Your task to perform on an android device: Check the weather Image 0: 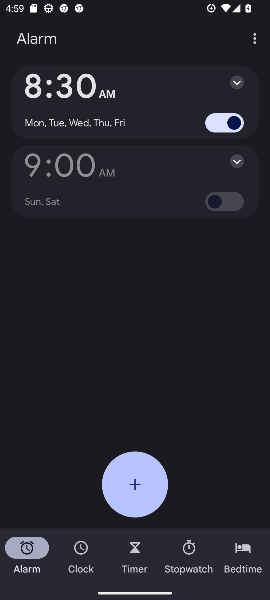
Step 0: press back button
Your task to perform on an android device: Check the weather Image 1: 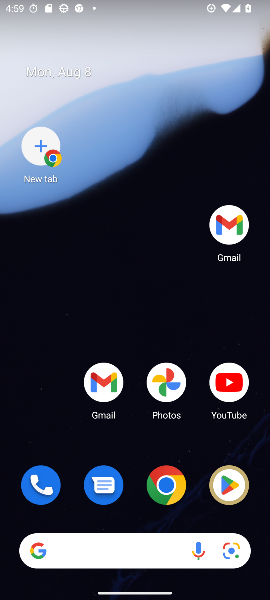
Step 1: drag from (177, 525) to (120, 89)
Your task to perform on an android device: Check the weather Image 2: 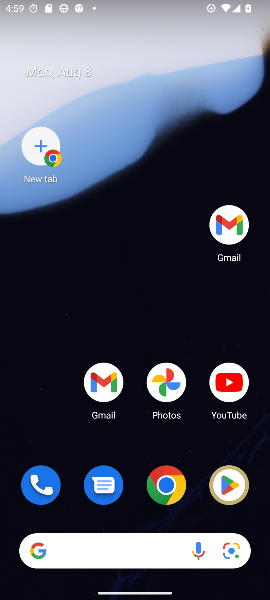
Step 2: drag from (200, 417) to (176, 229)
Your task to perform on an android device: Check the weather Image 3: 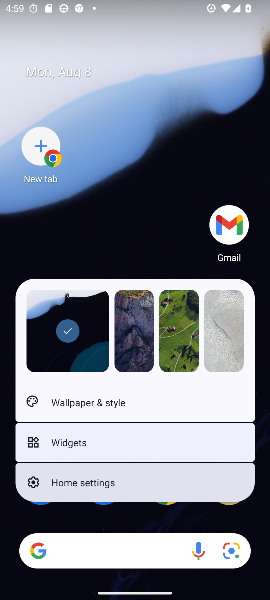
Step 3: press home button
Your task to perform on an android device: Check the weather Image 4: 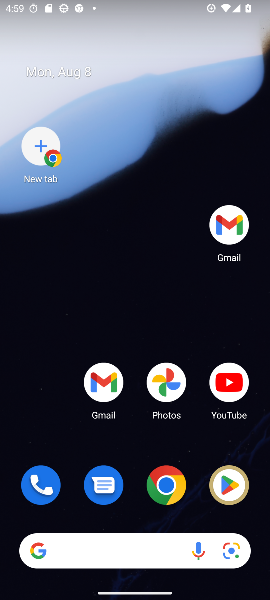
Step 4: click (87, 106)
Your task to perform on an android device: Check the weather Image 5: 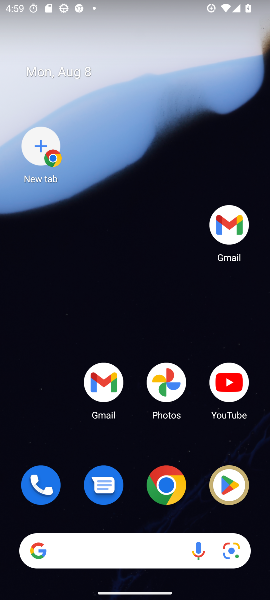
Step 5: drag from (146, 464) to (69, 76)
Your task to perform on an android device: Check the weather Image 6: 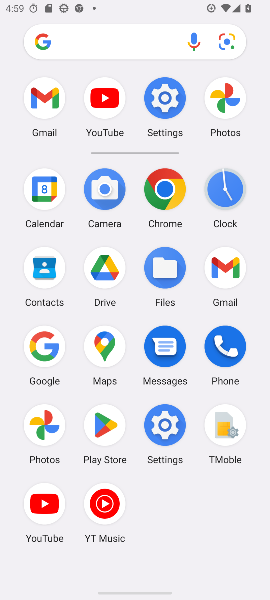
Step 6: drag from (142, 393) to (128, 143)
Your task to perform on an android device: Check the weather Image 7: 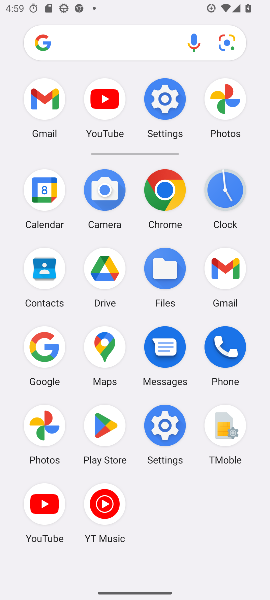
Step 7: click (164, 185)
Your task to perform on an android device: Check the weather Image 8: 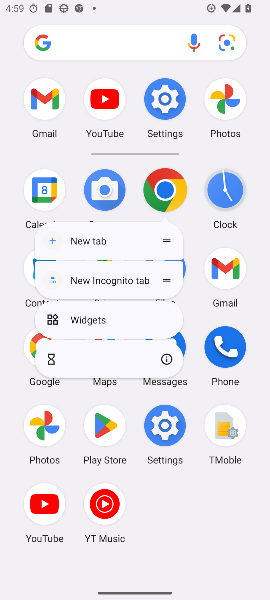
Step 8: click (164, 185)
Your task to perform on an android device: Check the weather Image 9: 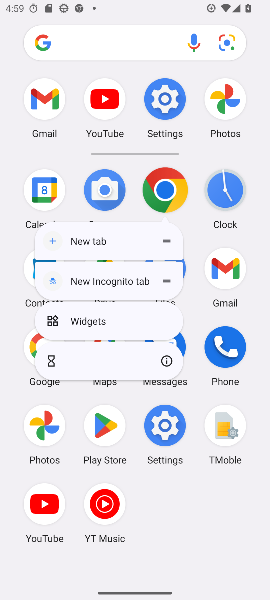
Step 9: click (164, 185)
Your task to perform on an android device: Check the weather Image 10: 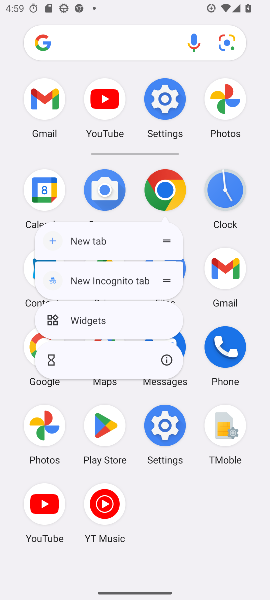
Step 10: click (164, 185)
Your task to perform on an android device: Check the weather Image 11: 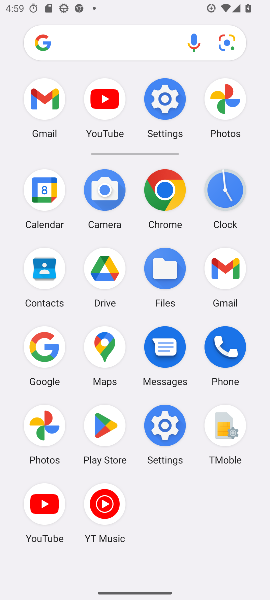
Step 11: click (164, 185)
Your task to perform on an android device: Check the weather Image 12: 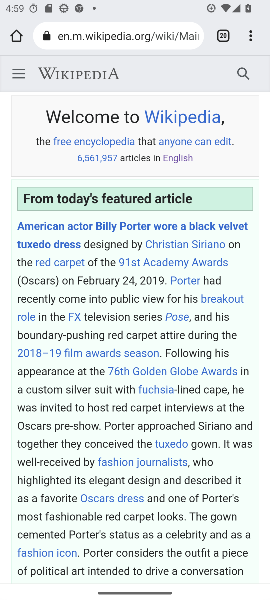
Step 12: click (164, 185)
Your task to perform on an android device: Check the weather Image 13: 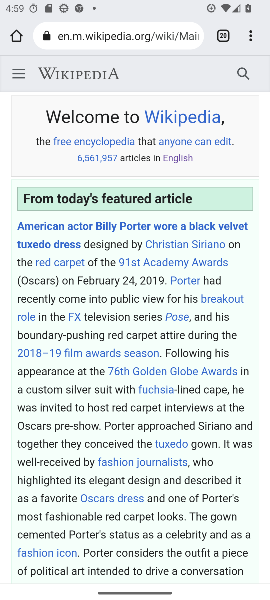
Step 13: click (249, 40)
Your task to perform on an android device: Check the weather Image 14: 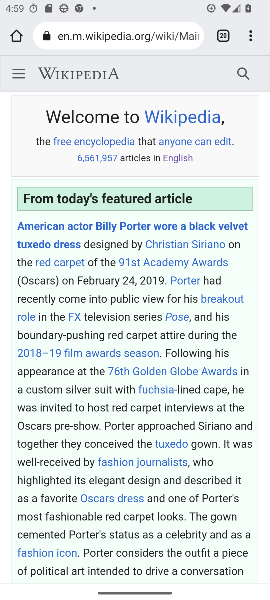
Step 14: drag from (251, 38) to (126, 117)
Your task to perform on an android device: Check the weather Image 15: 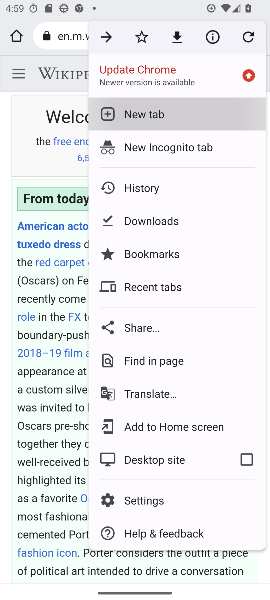
Step 15: click (126, 117)
Your task to perform on an android device: Check the weather Image 16: 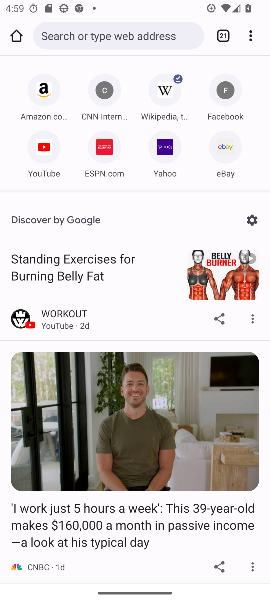
Step 16: click (48, 34)
Your task to perform on an android device: Check the weather Image 17: 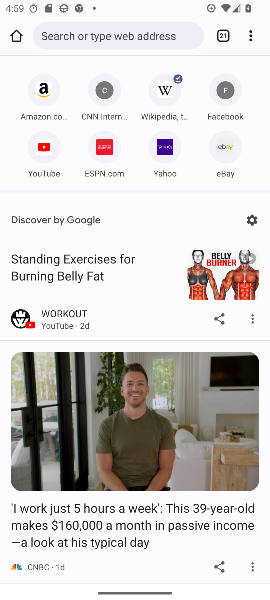
Step 17: click (49, 35)
Your task to perform on an android device: Check the weather Image 18: 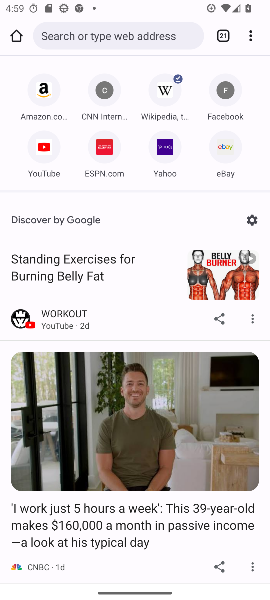
Step 18: click (49, 35)
Your task to perform on an android device: Check the weather Image 19: 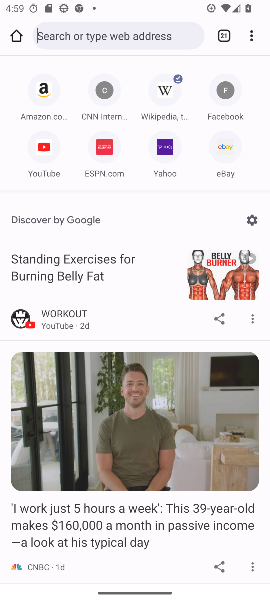
Step 19: click (49, 35)
Your task to perform on an android device: Check the weather Image 20: 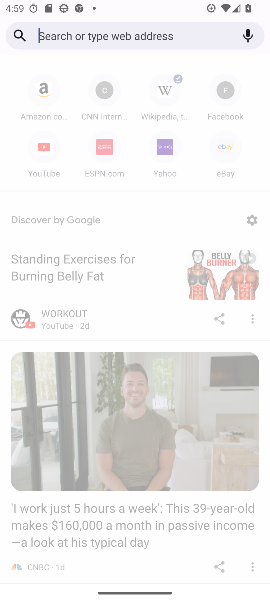
Step 20: click (49, 35)
Your task to perform on an android device: Check the weather Image 21: 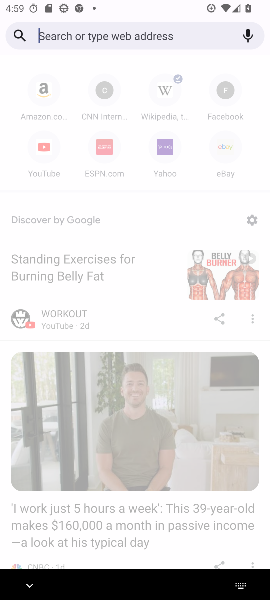
Step 21: click (49, 39)
Your task to perform on an android device: Check the weather Image 22: 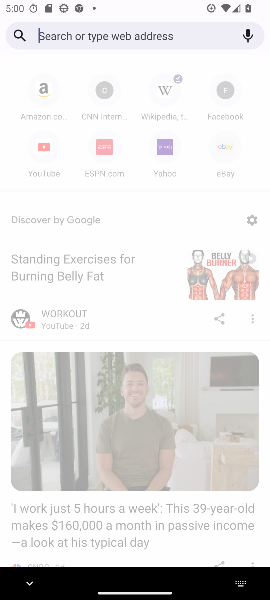
Step 22: type "today weather"
Your task to perform on an android device: Check the weather Image 23: 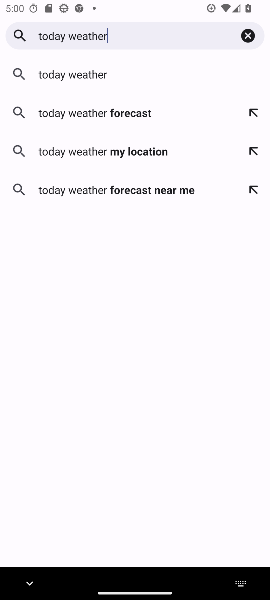
Step 23: click (73, 63)
Your task to perform on an android device: Check the weather Image 24: 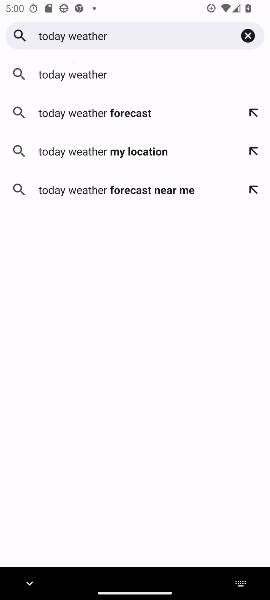
Step 24: click (74, 71)
Your task to perform on an android device: Check the weather Image 25: 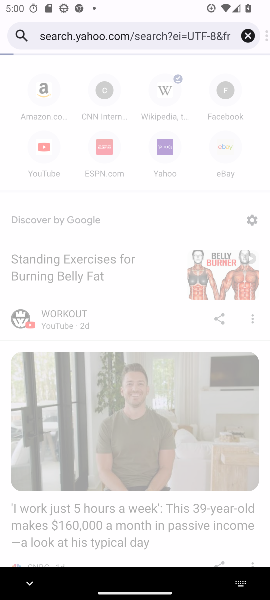
Step 25: click (75, 73)
Your task to perform on an android device: Check the weather Image 26: 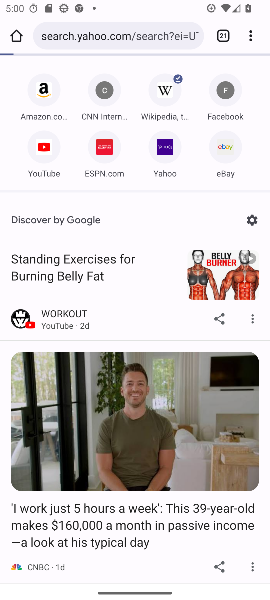
Step 26: task complete